Your task to perform on an android device: Is it going to rain today? Image 0: 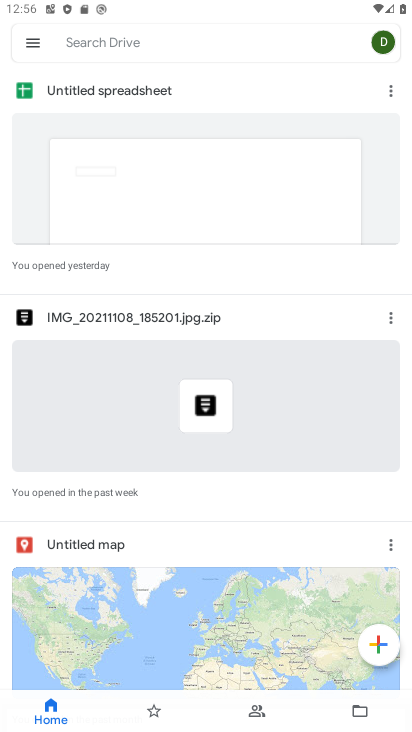
Step 0: press home button
Your task to perform on an android device: Is it going to rain today? Image 1: 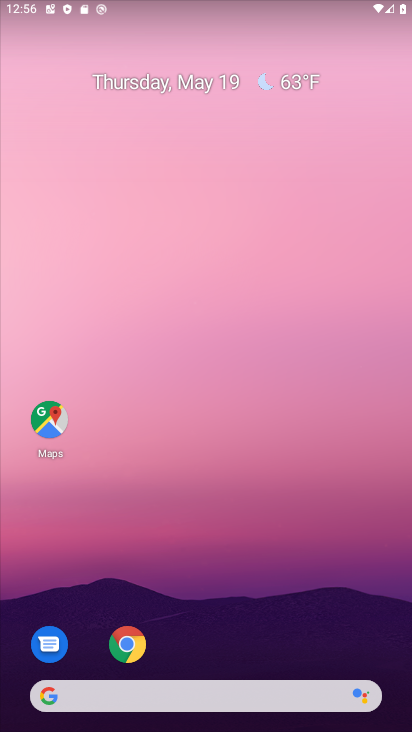
Step 1: click (300, 85)
Your task to perform on an android device: Is it going to rain today? Image 2: 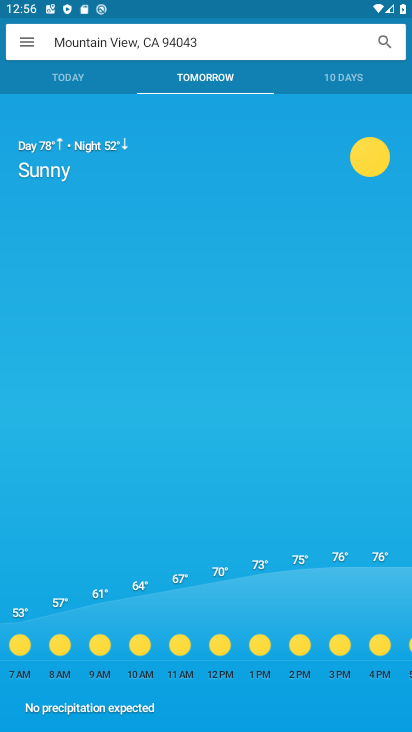
Step 2: task complete